Your task to perform on an android device: turn on sleep mode Image 0: 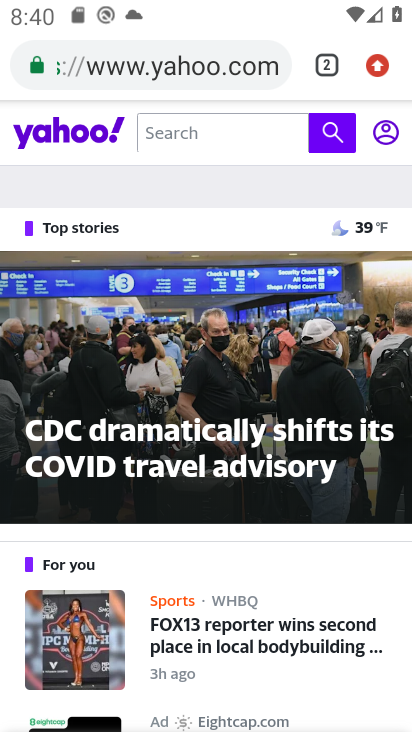
Step 0: press back button
Your task to perform on an android device: turn on sleep mode Image 1: 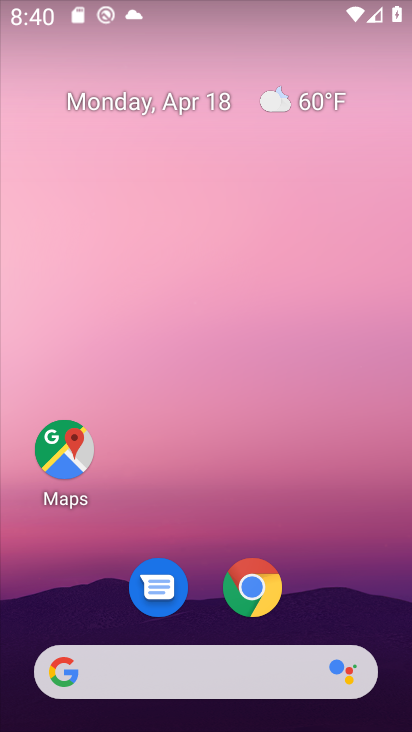
Step 1: drag from (352, 558) to (325, 146)
Your task to perform on an android device: turn on sleep mode Image 2: 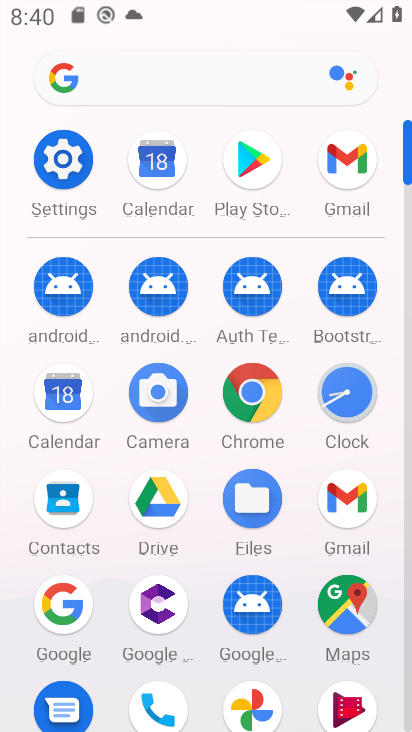
Step 2: click (58, 167)
Your task to perform on an android device: turn on sleep mode Image 3: 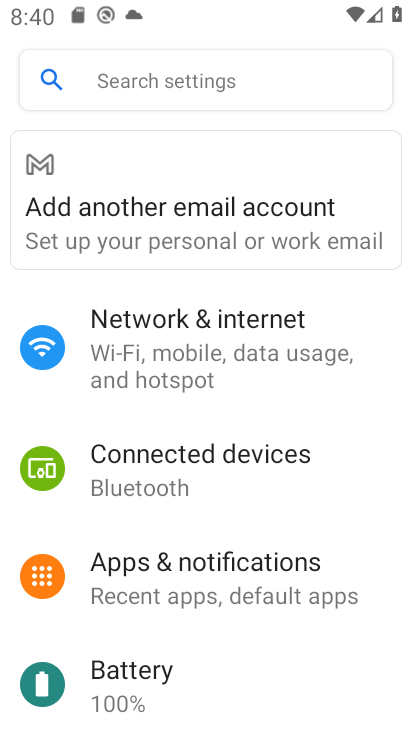
Step 3: drag from (212, 494) to (213, 359)
Your task to perform on an android device: turn on sleep mode Image 4: 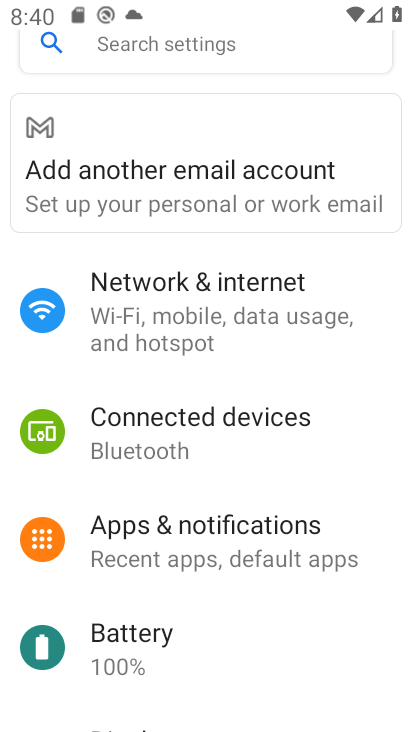
Step 4: drag from (247, 630) to (273, 407)
Your task to perform on an android device: turn on sleep mode Image 5: 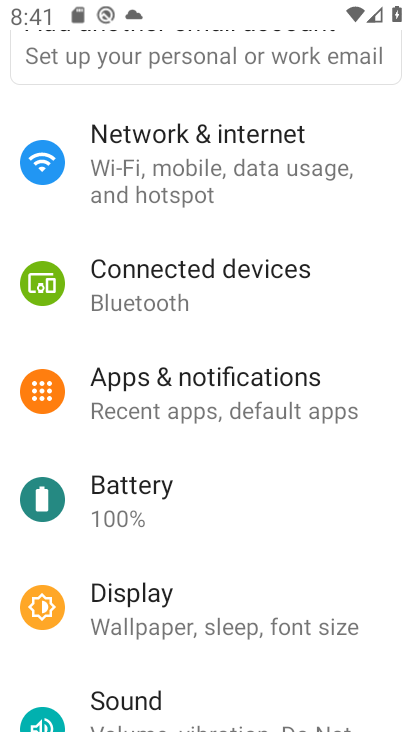
Step 5: drag from (210, 670) to (224, 445)
Your task to perform on an android device: turn on sleep mode Image 6: 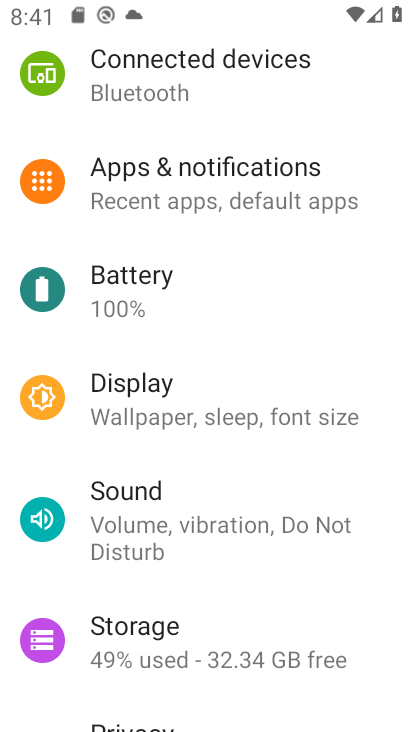
Step 6: click (230, 431)
Your task to perform on an android device: turn on sleep mode Image 7: 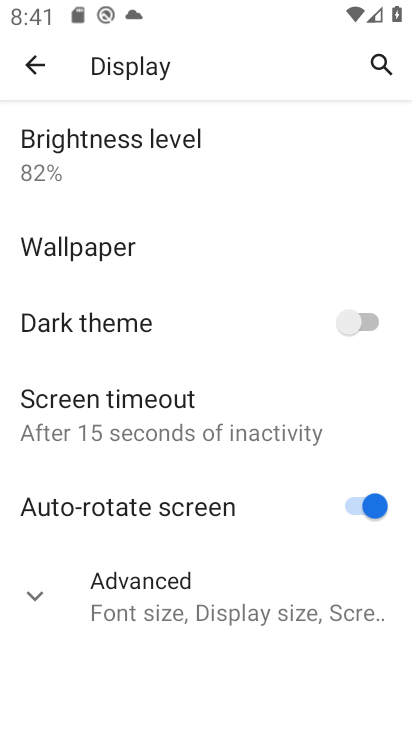
Step 7: click (195, 445)
Your task to perform on an android device: turn on sleep mode Image 8: 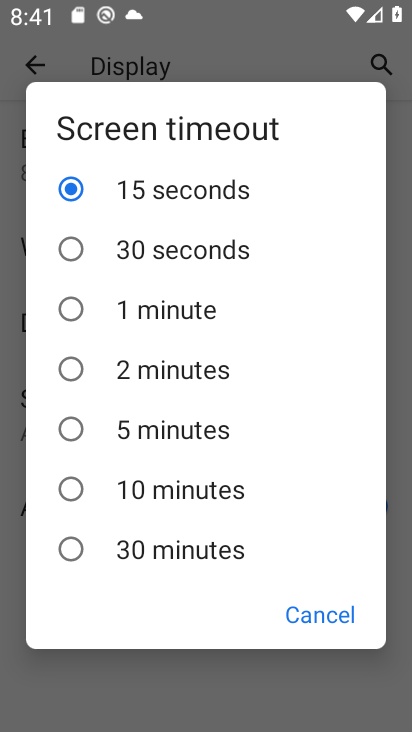
Step 8: click (192, 419)
Your task to perform on an android device: turn on sleep mode Image 9: 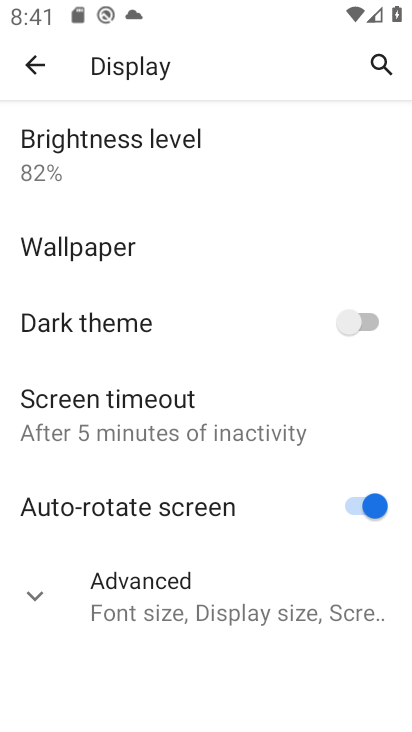
Step 9: task complete